Your task to perform on an android device: Open Google Maps and go to "Timeline" Image 0: 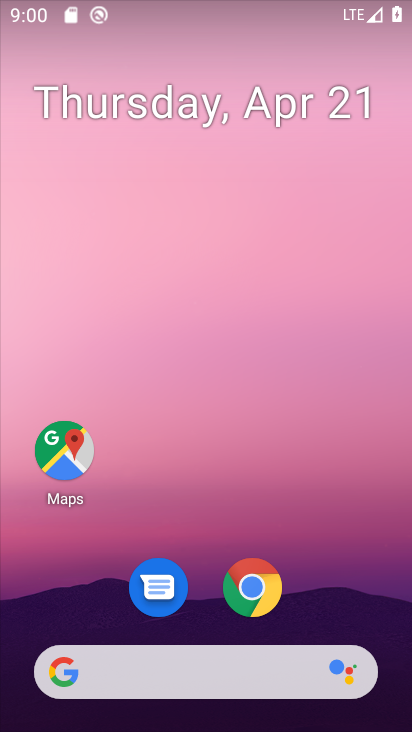
Step 0: click (368, 170)
Your task to perform on an android device: Open Google Maps and go to "Timeline" Image 1: 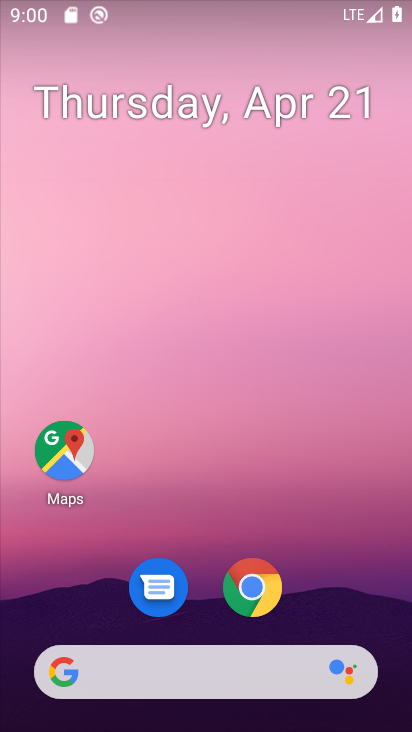
Step 1: click (368, 144)
Your task to perform on an android device: Open Google Maps and go to "Timeline" Image 2: 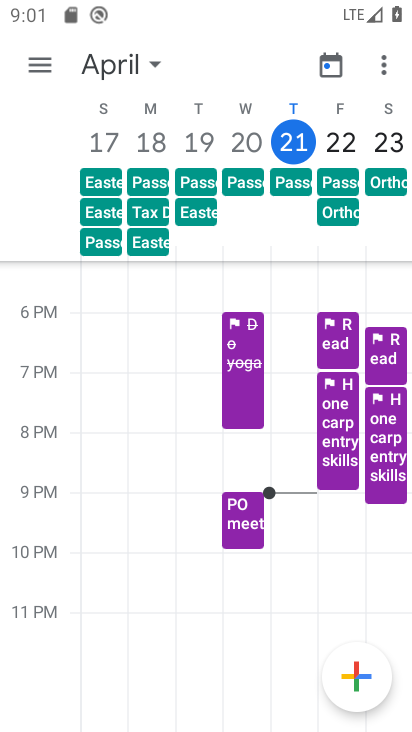
Step 2: press home button
Your task to perform on an android device: Open Google Maps and go to "Timeline" Image 3: 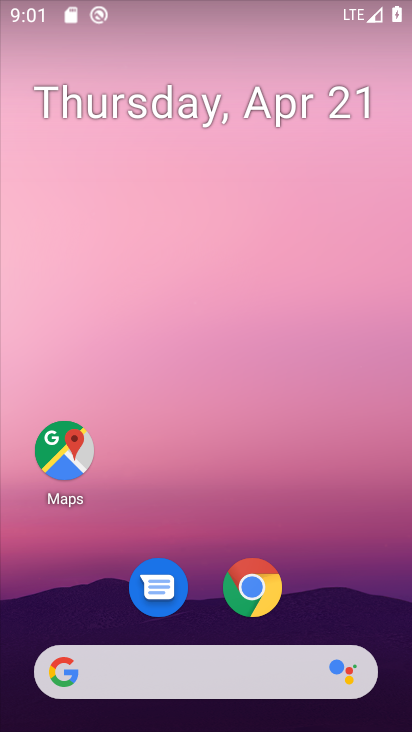
Step 3: drag from (350, 312) to (337, 165)
Your task to perform on an android device: Open Google Maps and go to "Timeline" Image 4: 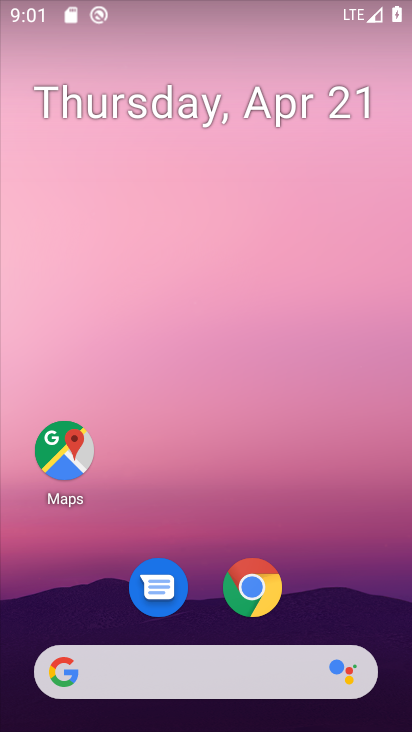
Step 4: drag from (362, 532) to (362, 202)
Your task to perform on an android device: Open Google Maps and go to "Timeline" Image 5: 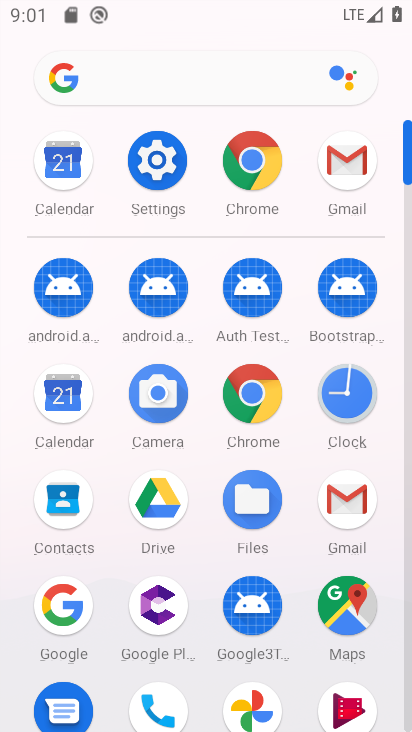
Step 5: click (344, 604)
Your task to perform on an android device: Open Google Maps and go to "Timeline" Image 6: 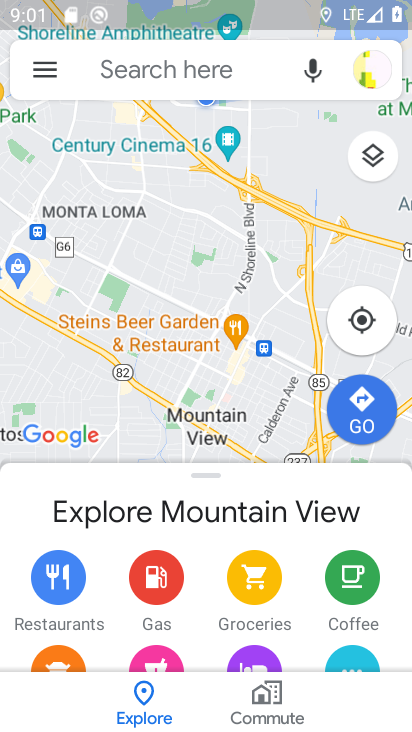
Step 6: click (32, 62)
Your task to perform on an android device: Open Google Maps and go to "Timeline" Image 7: 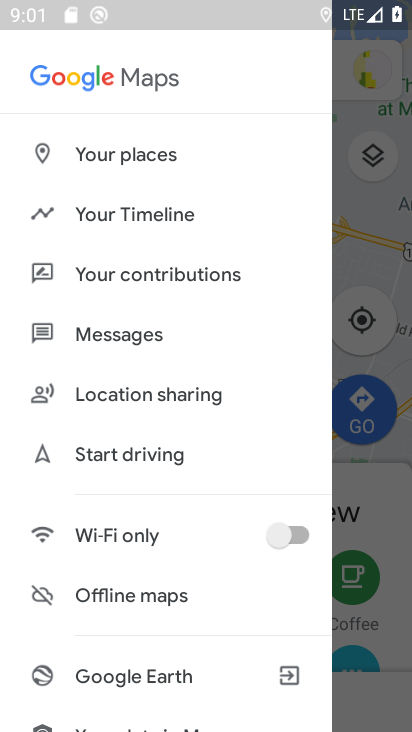
Step 7: click (100, 206)
Your task to perform on an android device: Open Google Maps and go to "Timeline" Image 8: 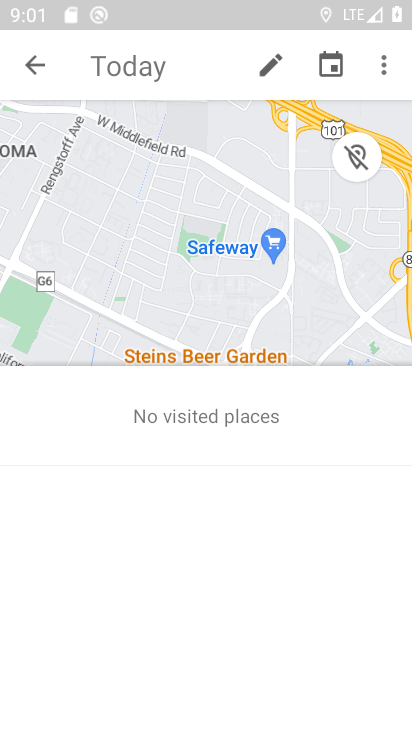
Step 8: task complete